Your task to perform on an android device: Open notification settings Image 0: 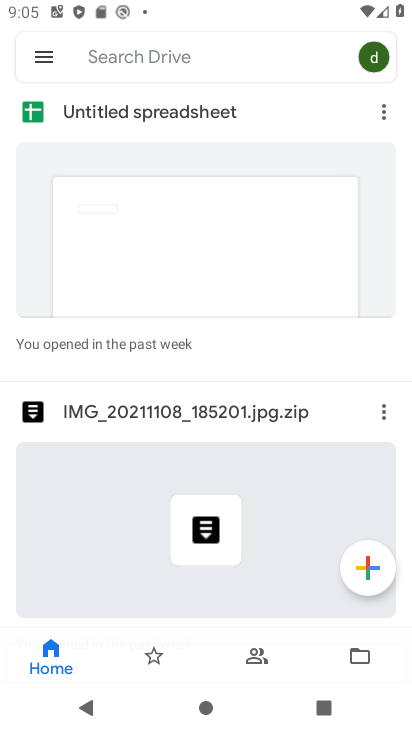
Step 0: press home button
Your task to perform on an android device: Open notification settings Image 1: 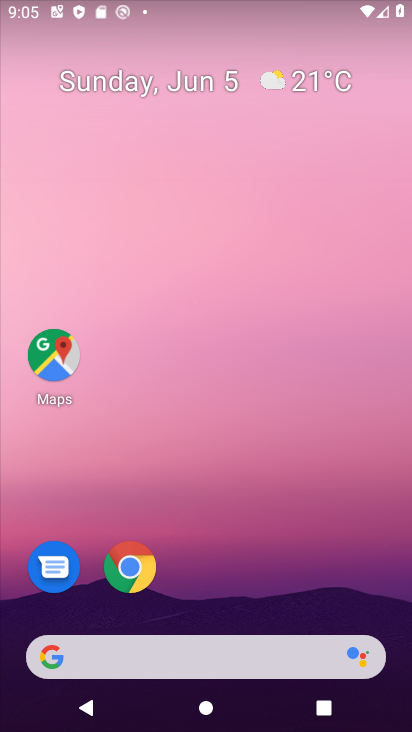
Step 1: drag from (196, 629) to (192, 375)
Your task to perform on an android device: Open notification settings Image 2: 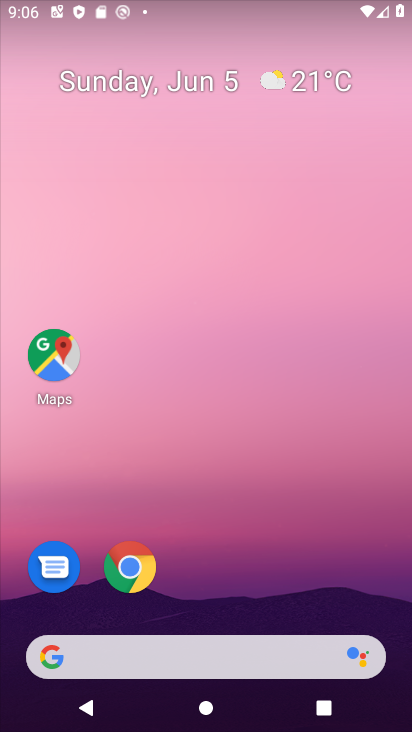
Step 2: drag from (206, 651) to (216, 339)
Your task to perform on an android device: Open notification settings Image 3: 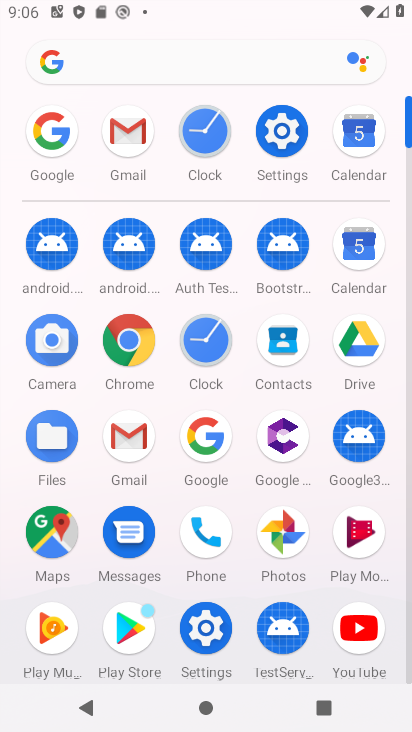
Step 3: click (283, 139)
Your task to perform on an android device: Open notification settings Image 4: 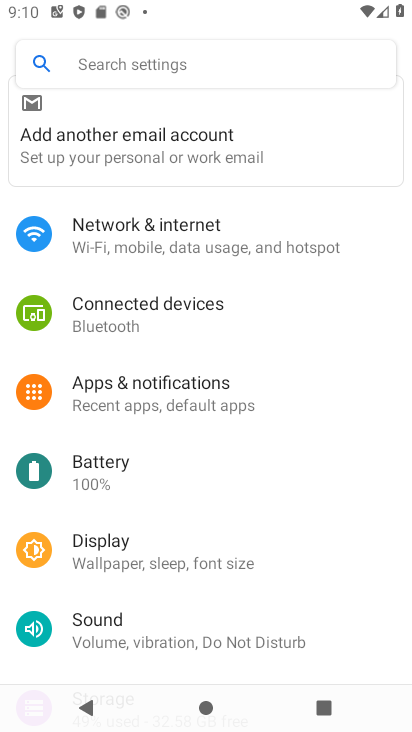
Step 4: click (195, 399)
Your task to perform on an android device: Open notification settings Image 5: 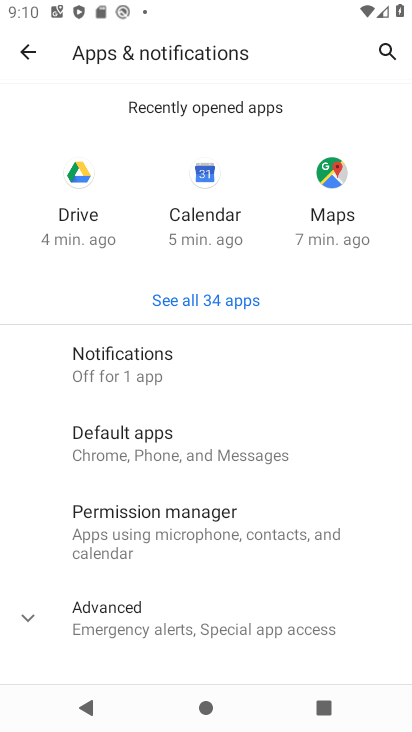
Step 5: task complete